Your task to perform on an android device: Search for "razer blade" on newegg, select the first entry, and add it to the cart. Image 0: 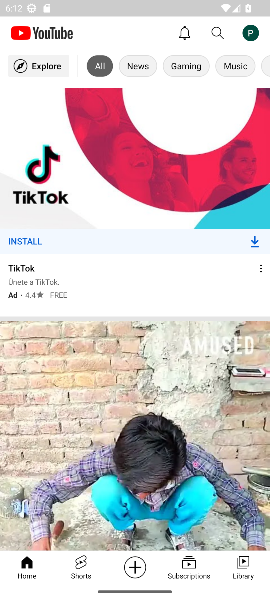
Step 0: press home button
Your task to perform on an android device: Search for "razer blade" on newegg, select the first entry, and add it to the cart. Image 1: 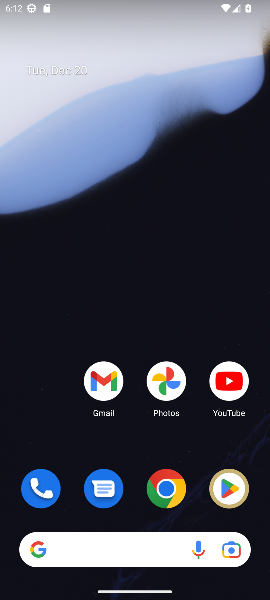
Step 1: drag from (63, 451) to (49, 57)
Your task to perform on an android device: Search for "razer blade" on newegg, select the first entry, and add it to the cart. Image 2: 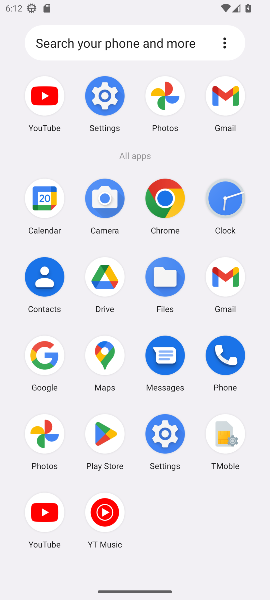
Step 2: click (40, 363)
Your task to perform on an android device: Search for "razer blade" on newegg, select the first entry, and add it to the cart. Image 3: 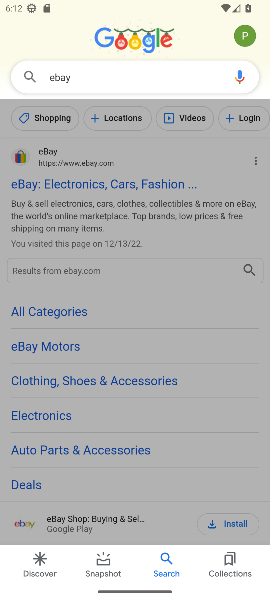
Step 3: click (127, 73)
Your task to perform on an android device: Search for "razer blade" on newegg, select the first entry, and add it to the cart. Image 4: 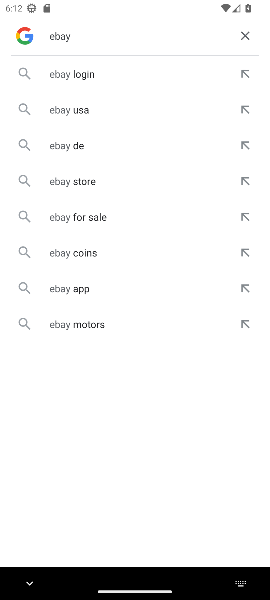
Step 4: click (246, 31)
Your task to perform on an android device: Search for "razer blade" on newegg, select the first entry, and add it to the cart. Image 5: 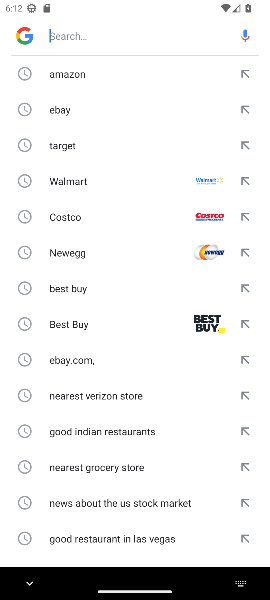
Step 5: type "newegg"
Your task to perform on an android device: Search for "razer blade" on newegg, select the first entry, and add it to the cart. Image 6: 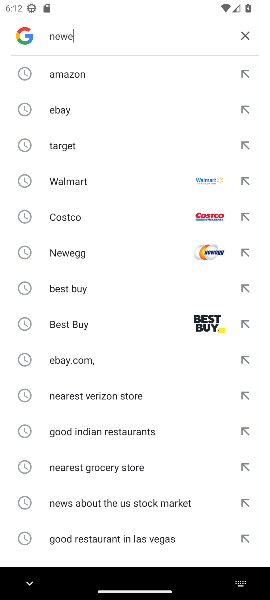
Step 6: press enter
Your task to perform on an android device: Search for "razer blade" on newegg, select the first entry, and add it to the cart. Image 7: 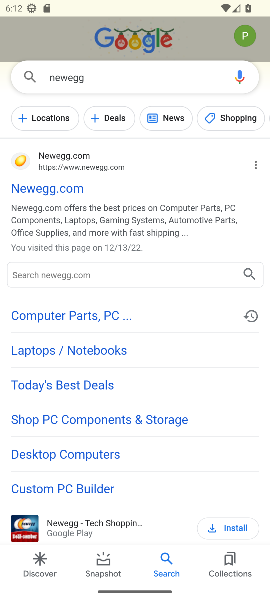
Step 7: click (62, 186)
Your task to perform on an android device: Search for "razer blade" on newegg, select the first entry, and add it to the cart. Image 8: 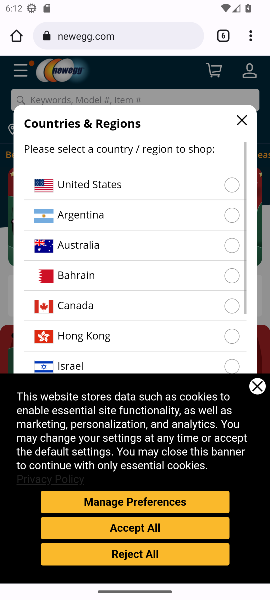
Step 8: click (260, 388)
Your task to perform on an android device: Search for "razer blade" on newegg, select the first entry, and add it to the cart. Image 9: 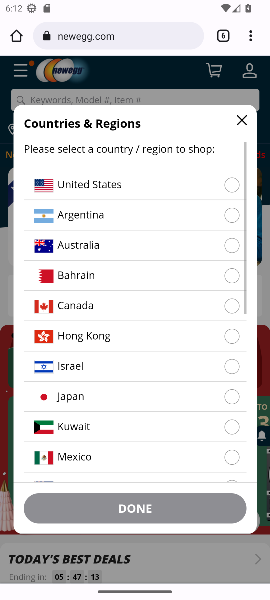
Step 9: click (241, 113)
Your task to perform on an android device: Search for "razer blade" on newegg, select the first entry, and add it to the cart. Image 10: 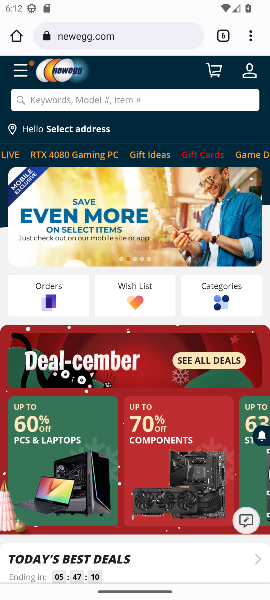
Step 10: click (102, 98)
Your task to perform on an android device: Search for "razer blade" on newegg, select the first entry, and add it to the cart. Image 11: 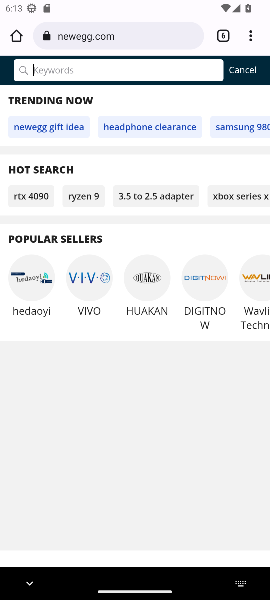
Step 11: type "razer blade"
Your task to perform on an android device: Search for "razer blade" on newegg, select the first entry, and add it to the cart. Image 12: 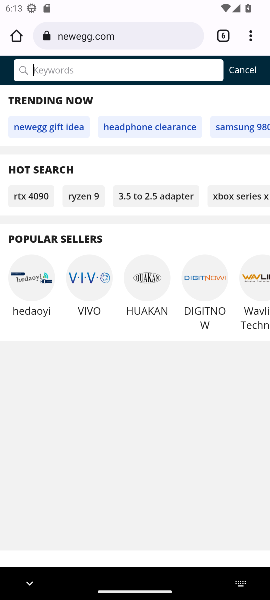
Step 12: press enter
Your task to perform on an android device: Search for "razer blade" on newegg, select the first entry, and add it to the cart. Image 13: 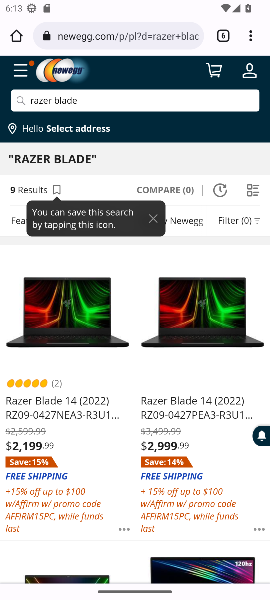
Step 13: click (155, 416)
Your task to perform on an android device: Search for "razer blade" on newegg, select the first entry, and add it to the cart. Image 14: 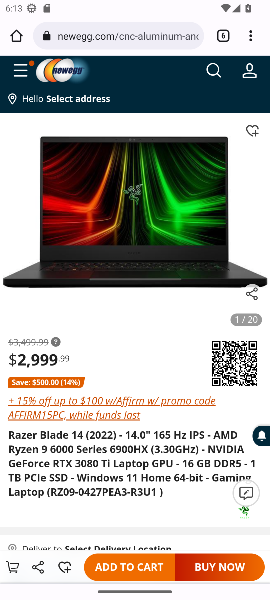
Step 14: click (115, 565)
Your task to perform on an android device: Search for "razer blade" on newegg, select the first entry, and add it to the cart. Image 15: 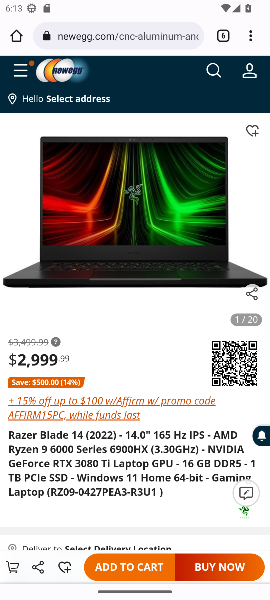
Step 15: click (128, 566)
Your task to perform on an android device: Search for "razer blade" on newegg, select the first entry, and add it to the cart. Image 16: 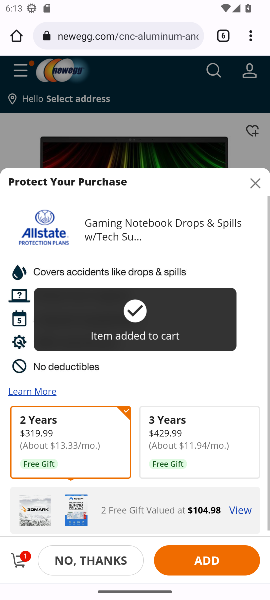
Step 16: task complete